Your task to perform on an android device: clear history in the chrome app Image 0: 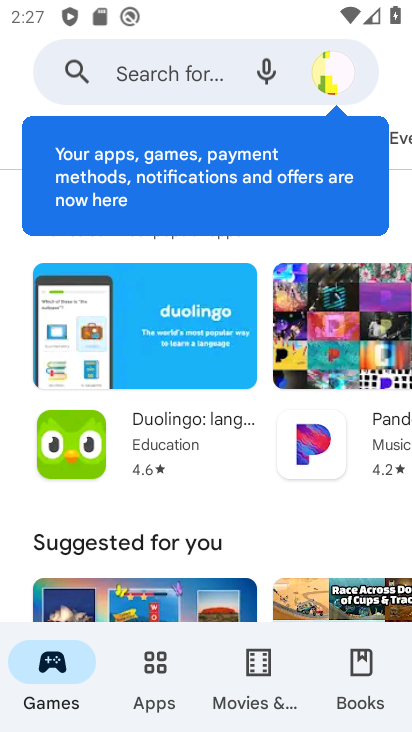
Step 0: press home button
Your task to perform on an android device: clear history in the chrome app Image 1: 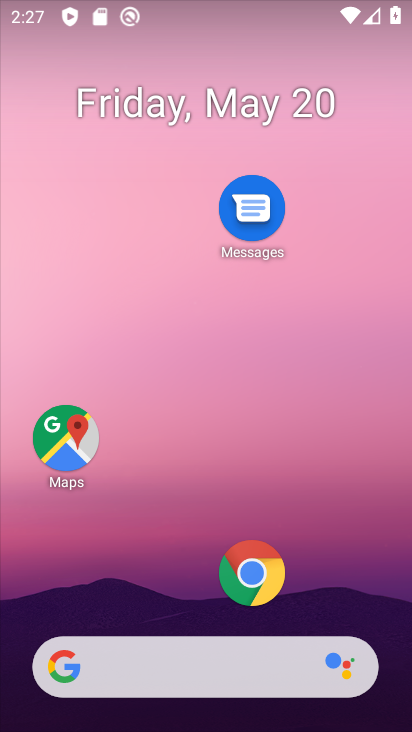
Step 1: click (249, 569)
Your task to perform on an android device: clear history in the chrome app Image 2: 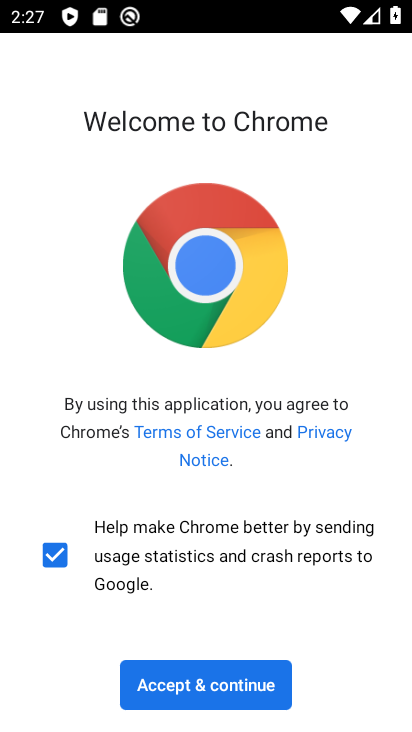
Step 2: click (190, 688)
Your task to perform on an android device: clear history in the chrome app Image 3: 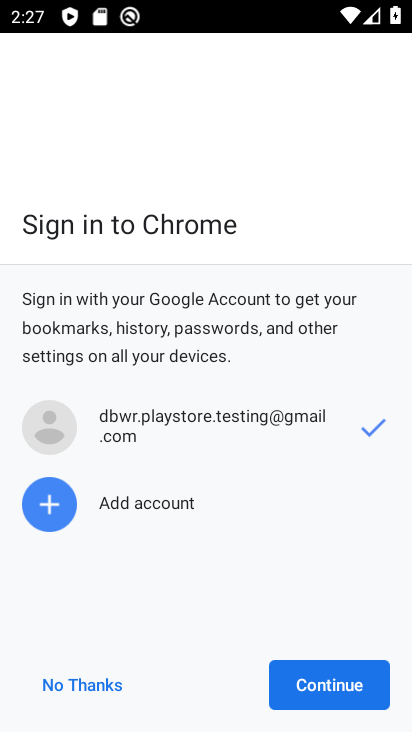
Step 3: click (283, 675)
Your task to perform on an android device: clear history in the chrome app Image 4: 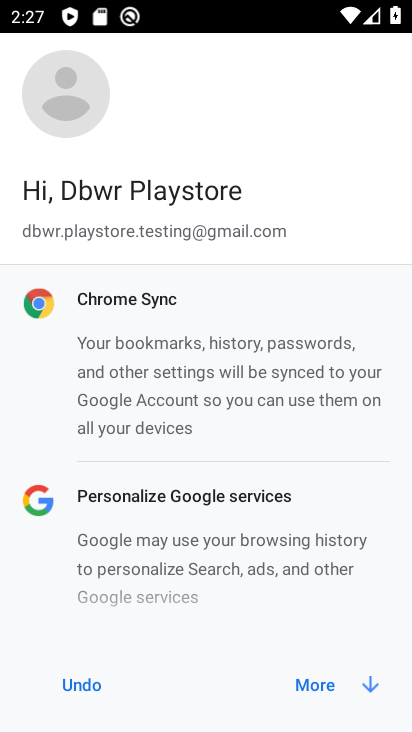
Step 4: click (283, 675)
Your task to perform on an android device: clear history in the chrome app Image 5: 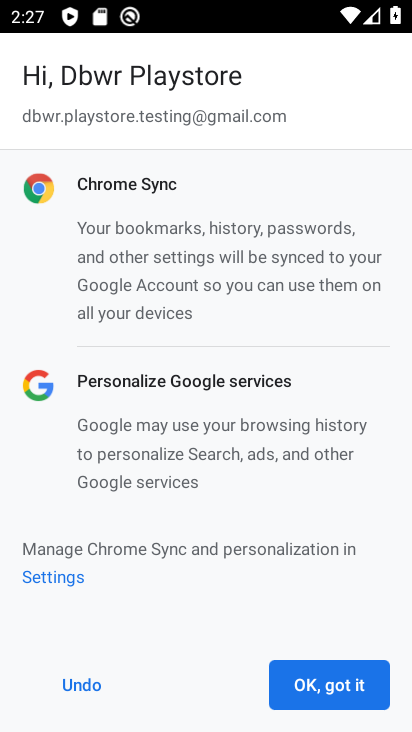
Step 5: click (304, 676)
Your task to perform on an android device: clear history in the chrome app Image 6: 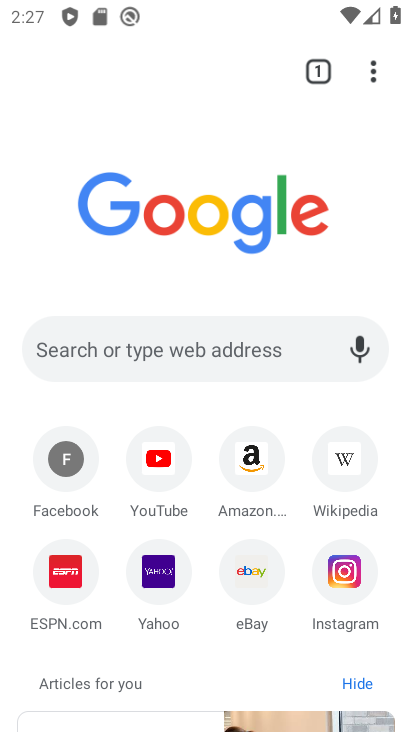
Step 6: click (360, 63)
Your task to perform on an android device: clear history in the chrome app Image 7: 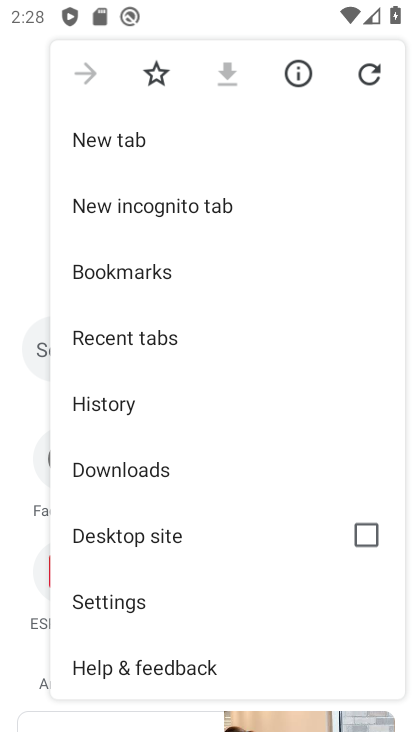
Step 7: click (153, 408)
Your task to perform on an android device: clear history in the chrome app Image 8: 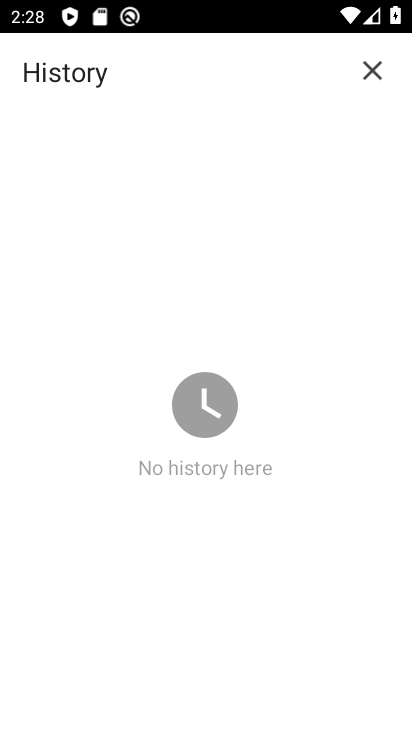
Step 8: task complete